Your task to perform on an android device: Open Youtube and go to the subscriptions tab Image 0: 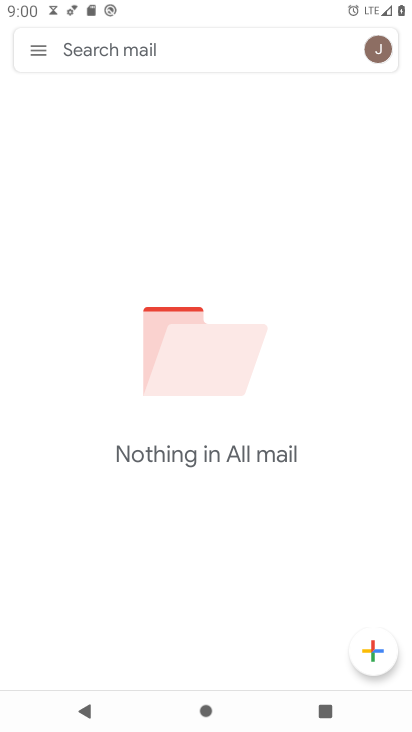
Step 0: press home button
Your task to perform on an android device: Open Youtube and go to the subscriptions tab Image 1: 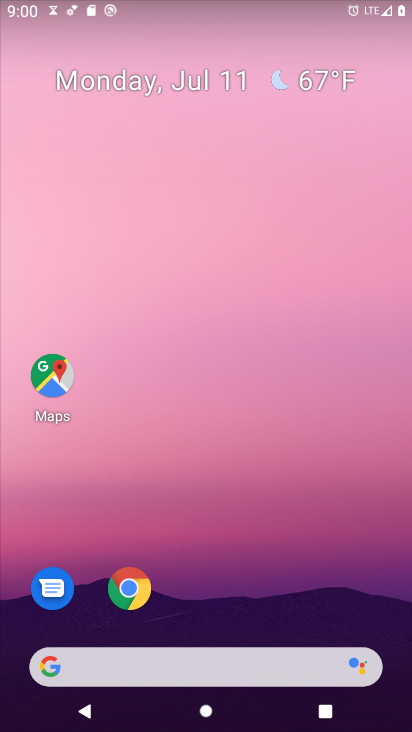
Step 1: drag from (216, 623) to (214, 62)
Your task to perform on an android device: Open Youtube and go to the subscriptions tab Image 2: 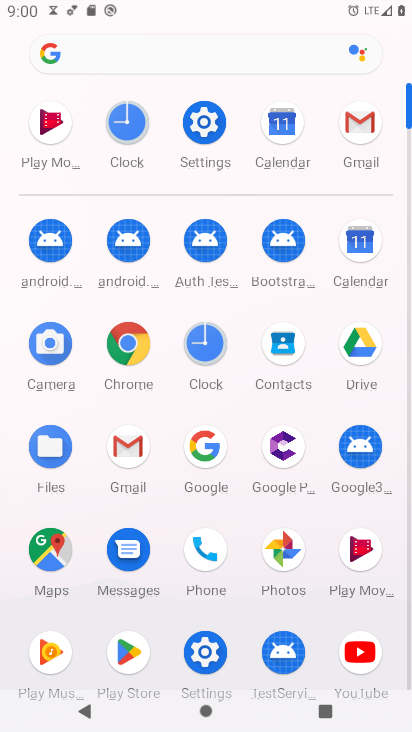
Step 2: click (358, 651)
Your task to perform on an android device: Open Youtube and go to the subscriptions tab Image 3: 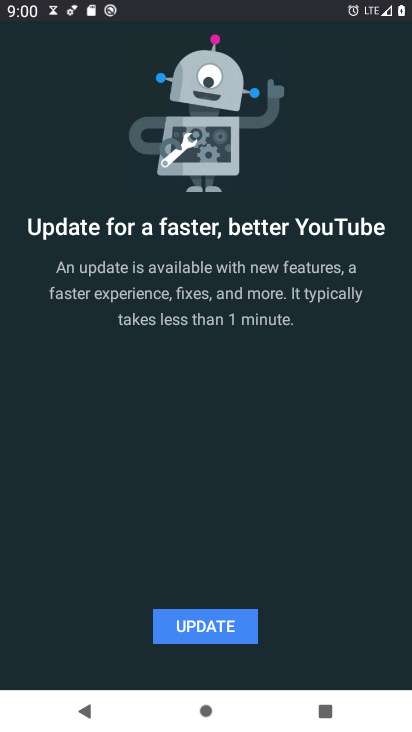
Step 3: click (228, 631)
Your task to perform on an android device: Open Youtube and go to the subscriptions tab Image 4: 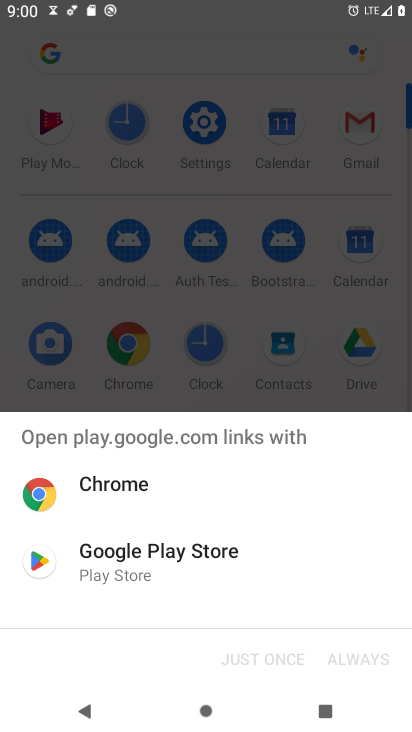
Step 4: click (185, 554)
Your task to perform on an android device: Open Youtube and go to the subscriptions tab Image 5: 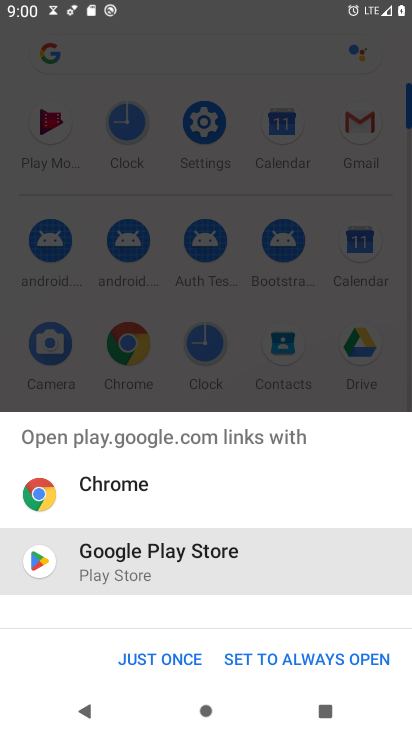
Step 5: click (143, 651)
Your task to perform on an android device: Open Youtube and go to the subscriptions tab Image 6: 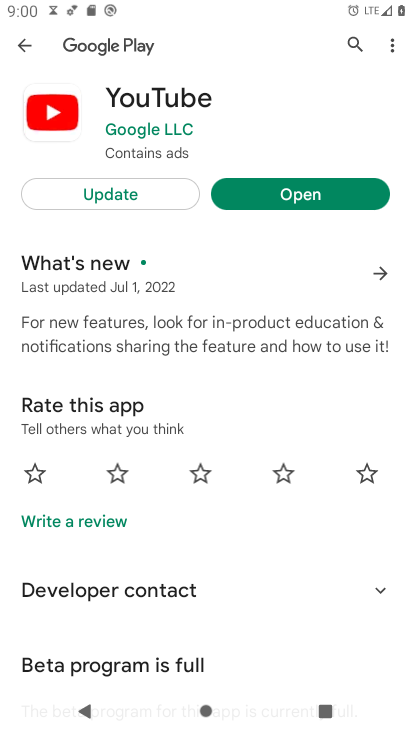
Step 6: click (145, 187)
Your task to perform on an android device: Open Youtube and go to the subscriptions tab Image 7: 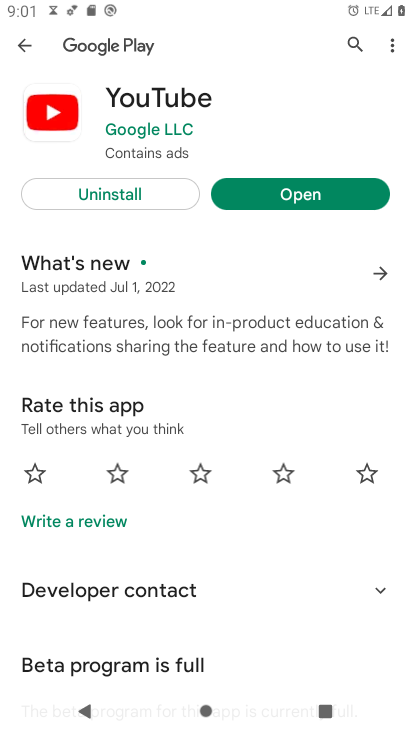
Step 7: click (268, 186)
Your task to perform on an android device: Open Youtube and go to the subscriptions tab Image 8: 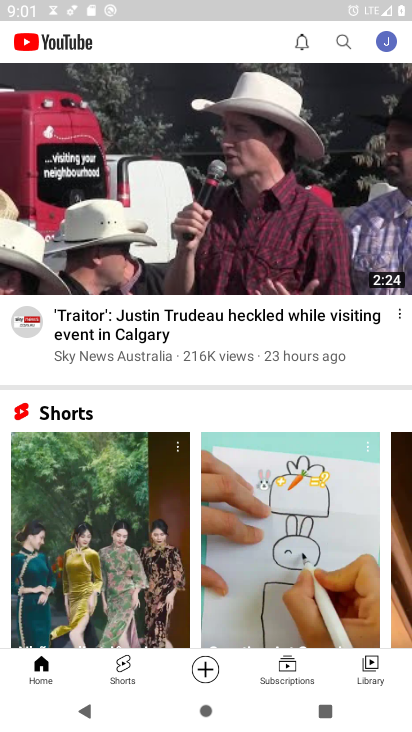
Step 8: click (289, 670)
Your task to perform on an android device: Open Youtube and go to the subscriptions tab Image 9: 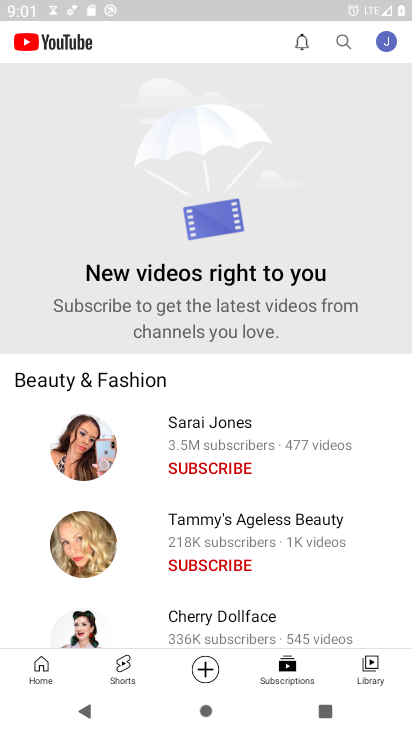
Step 9: task complete